Your task to perform on an android device: turn off improve location accuracy Image 0: 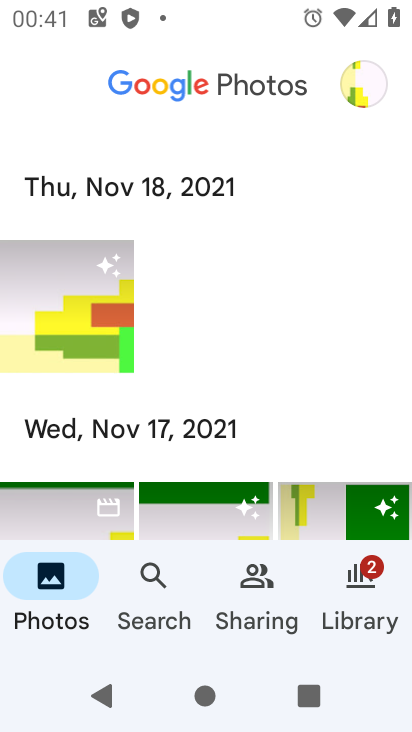
Step 0: press home button
Your task to perform on an android device: turn off improve location accuracy Image 1: 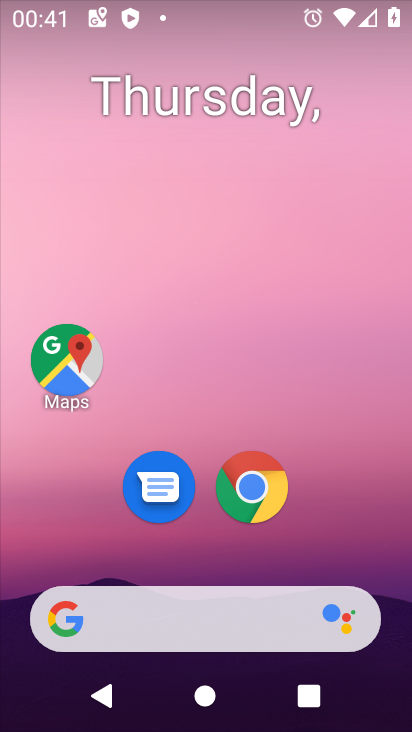
Step 1: drag from (338, 569) to (280, 3)
Your task to perform on an android device: turn off improve location accuracy Image 2: 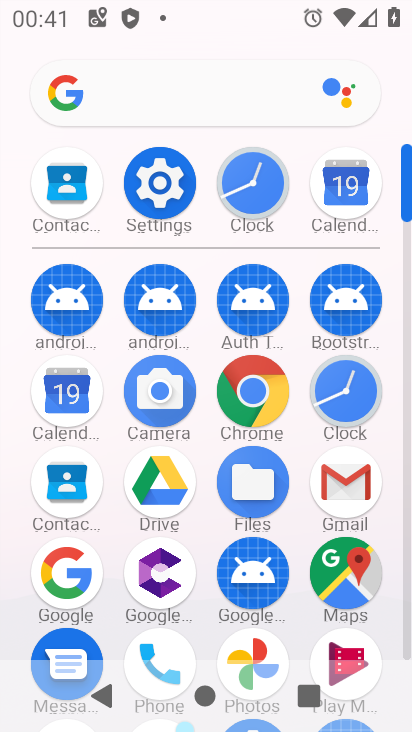
Step 2: click (153, 197)
Your task to perform on an android device: turn off improve location accuracy Image 3: 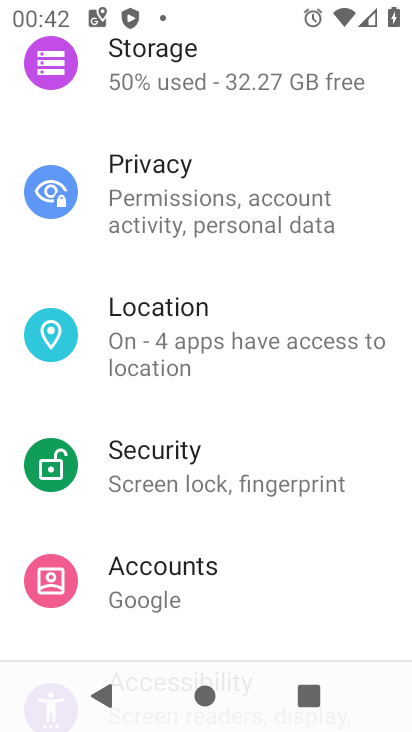
Step 3: click (200, 338)
Your task to perform on an android device: turn off improve location accuracy Image 4: 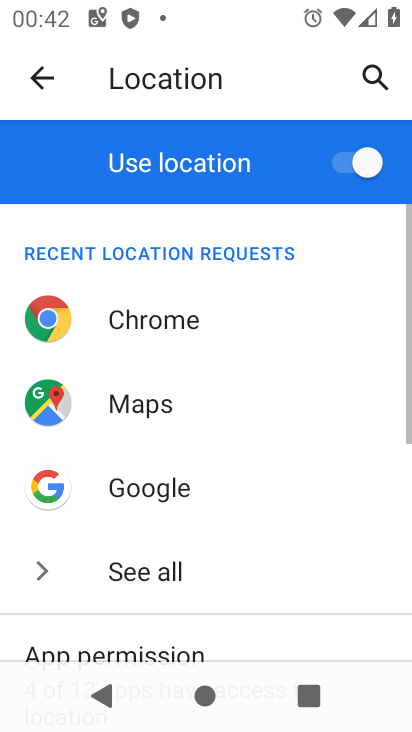
Step 4: drag from (177, 430) to (200, 85)
Your task to perform on an android device: turn off improve location accuracy Image 5: 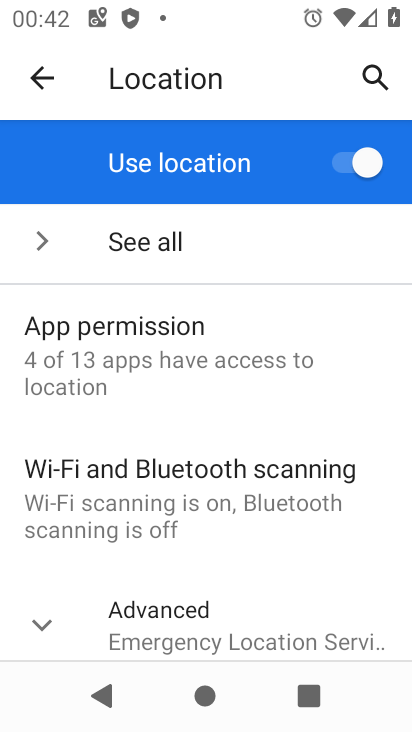
Step 5: click (46, 633)
Your task to perform on an android device: turn off improve location accuracy Image 6: 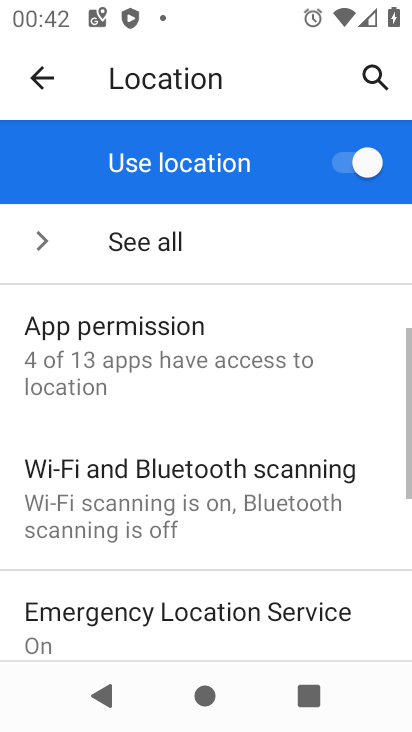
Step 6: drag from (184, 563) to (191, 98)
Your task to perform on an android device: turn off improve location accuracy Image 7: 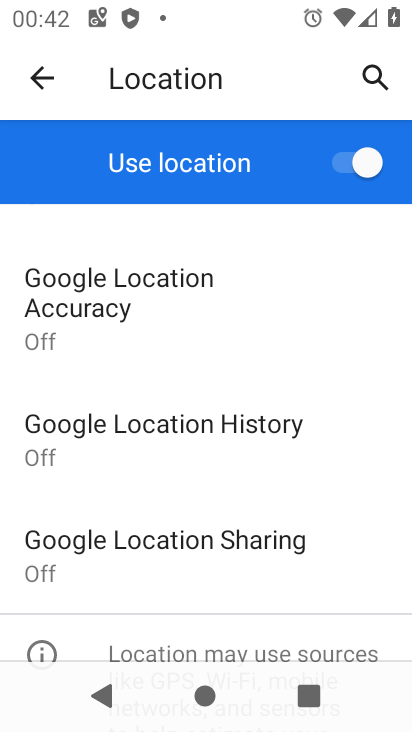
Step 7: click (88, 311)
Your task to perform on an android device: turn off improve location accuracy Image 8: 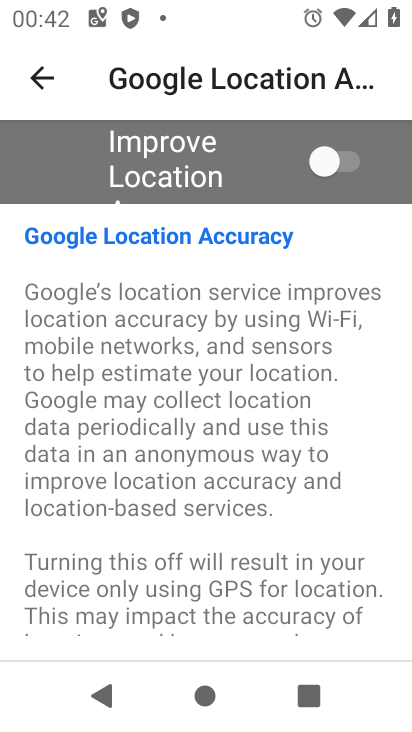
Step 8: task complete